Your task to perform on an android device: Open Google Maps and go to "Timeline" Image 0: 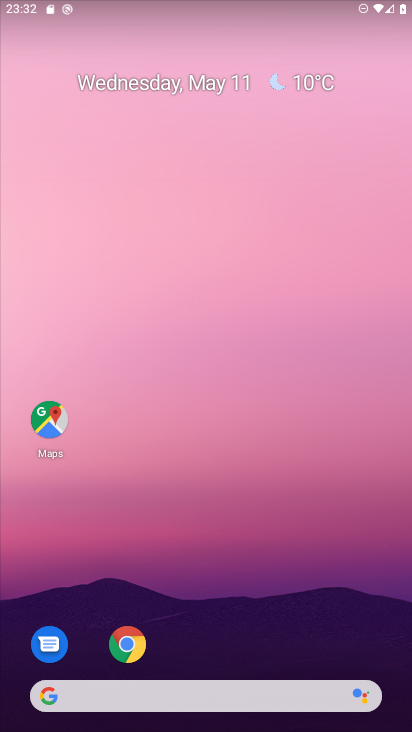
Step 0: click (45, 421)
Your task to perform on an android device: Open Google Maps and go to "Timeline" Image 1: 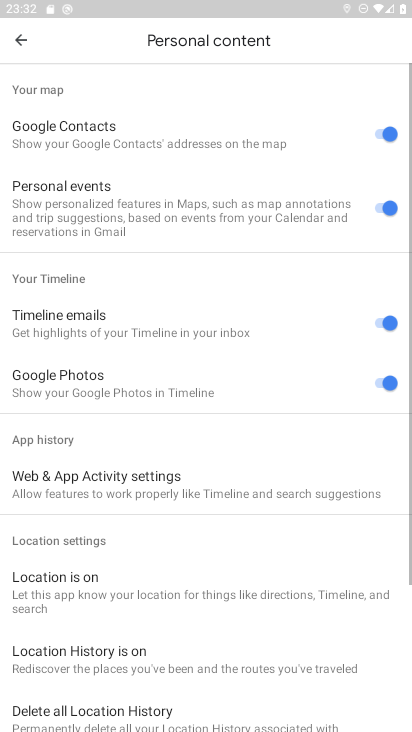
Step 1: click (17, 40)
Your task to perform on an android device: Open Google Maps and go to "Timeline" Image 2: 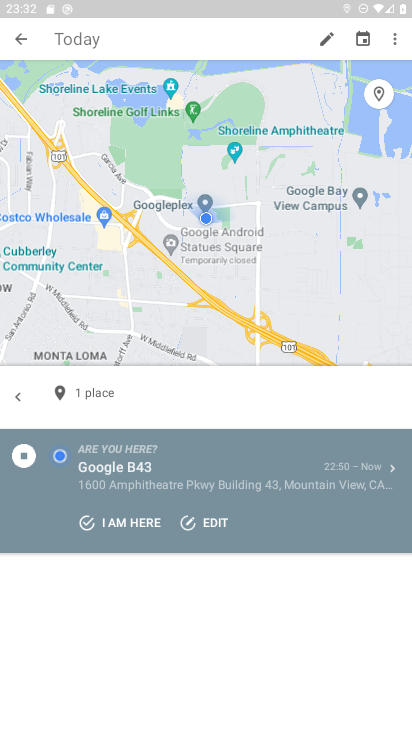
Step 2: click (17, 40)
Your task to perform on an android device: Open Google Maps and go to "Timeline" Image 3: 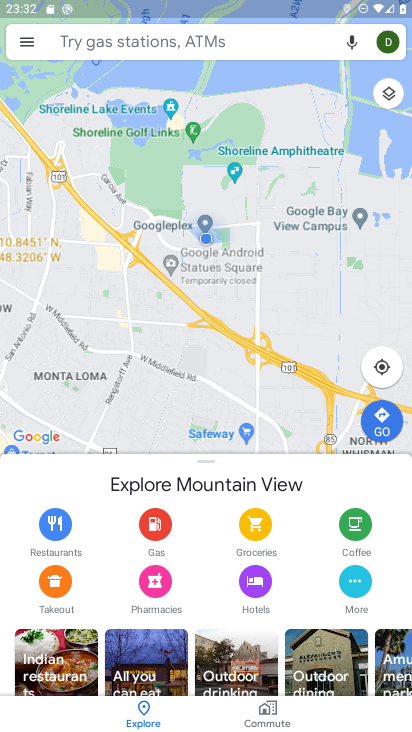
Step 3: click (28, 44)
Your task to perform on an android device: Open Google Maps and go to "Timeline" Image 4: 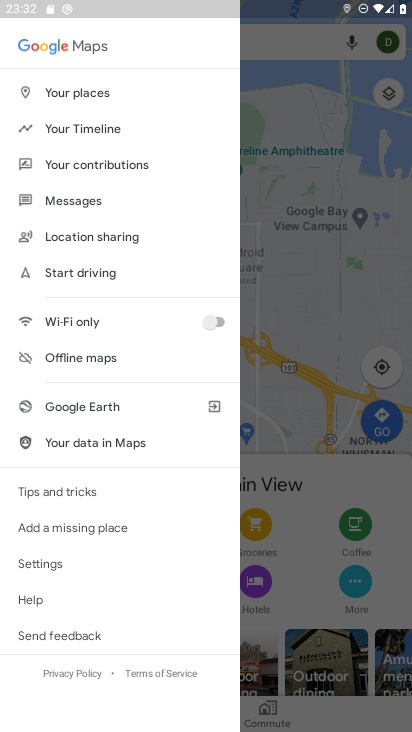
Step 4: click (57, 136)
Your task to perform on an android device: Open Google Maps and go to "Timeline" Image 5: 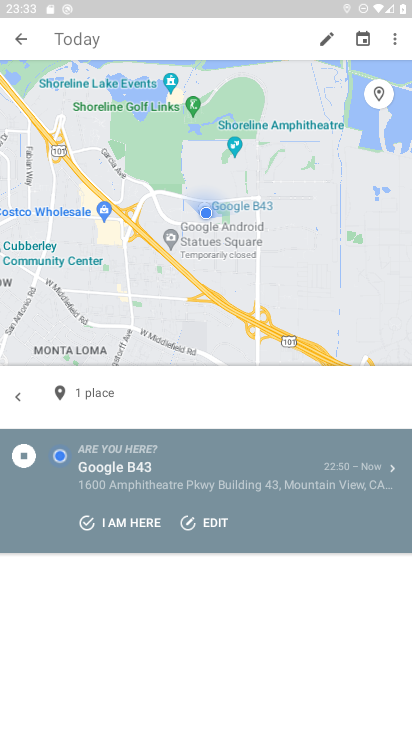
Step 5: task complete